Your task to perform on an android device: turn pop-ups on in chrome Image 0: 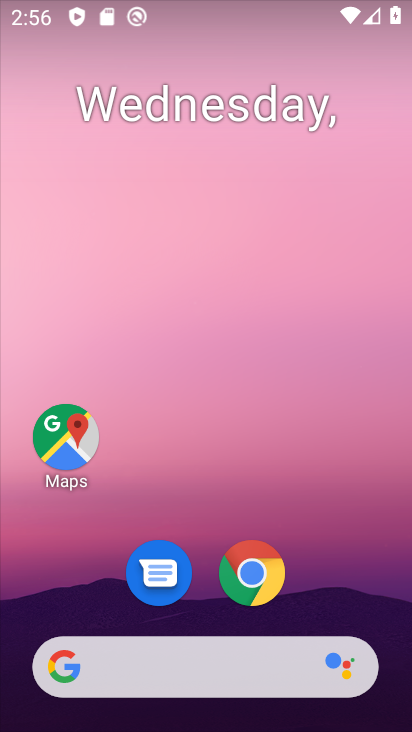
Step 0: click (250, 576)
Your task to perform on an android device: turn pop-ups on in chrome Image 1: 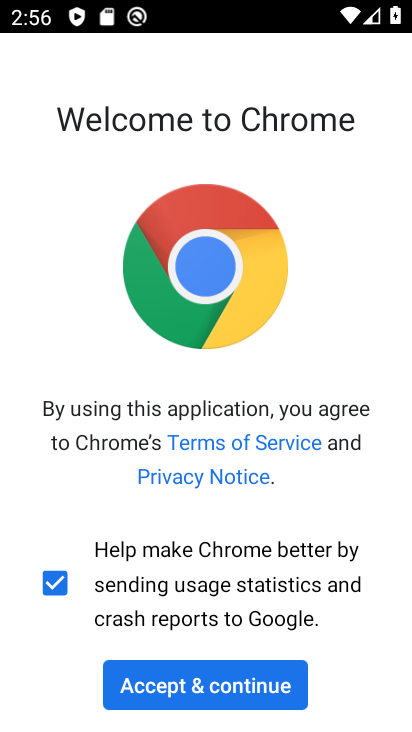
Step 1: click (229, 678)
Your task to perform on an android device: turn pop-ups on in chrome Image 2: 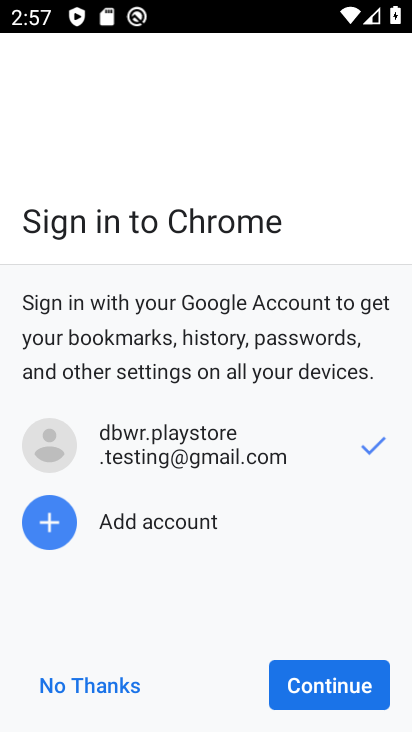
Step 2: click (295, 681)
Your task to perform on an android device: turn pop-ups on in chrome Image 3: 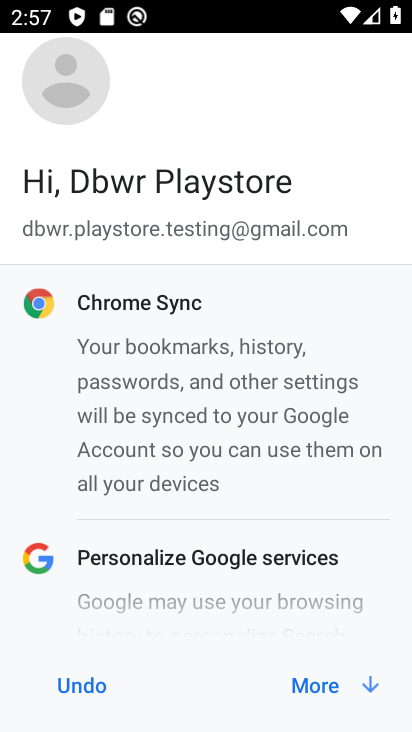
Step 3: click (314, 680)
Your task to perform on an android device: turn pop-ups on in chrome Image 4: 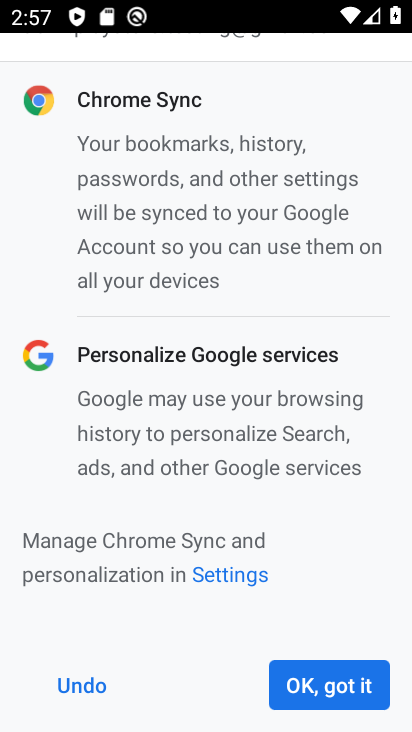
Step 4: click (316, 685)
Your task to perform on an android device: turn pop-ups on in chrome Image 5: 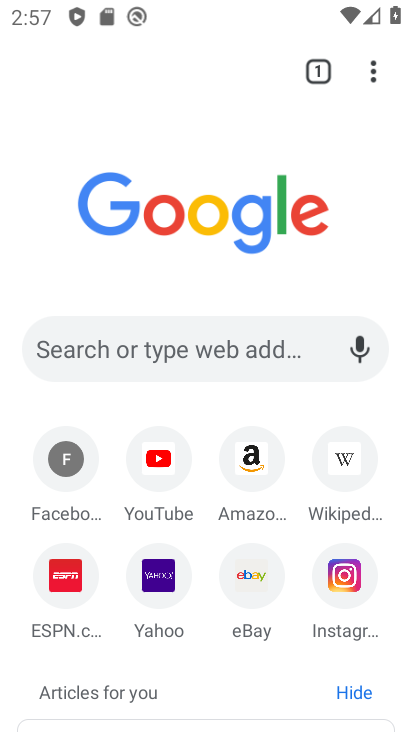
Step 5: click (370, 73)
Your task to perform on an android device: turn pop-ups on in chrome Image 6: 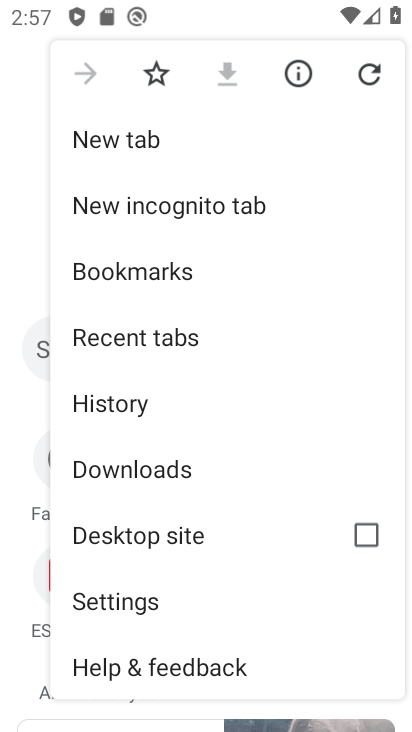
Step 6: click (129, 593)
Your task to perform on an android device: turn pop-ups on in chrome Image 7: 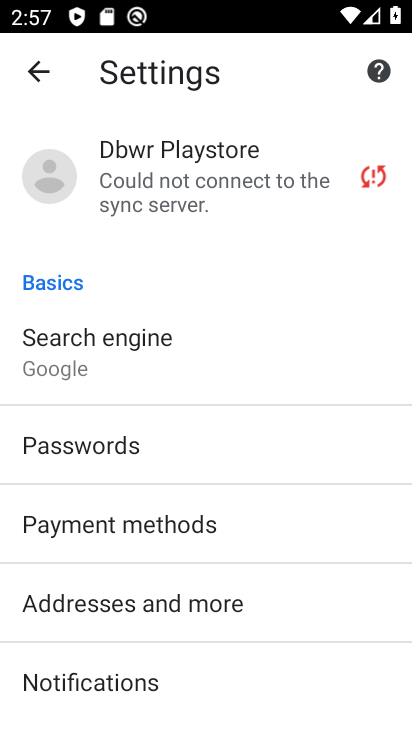
Step 7: drag from (296, 659) to (282, 242)
Your task to perform on an android device: turn pop-ups on in chrome Image 8: 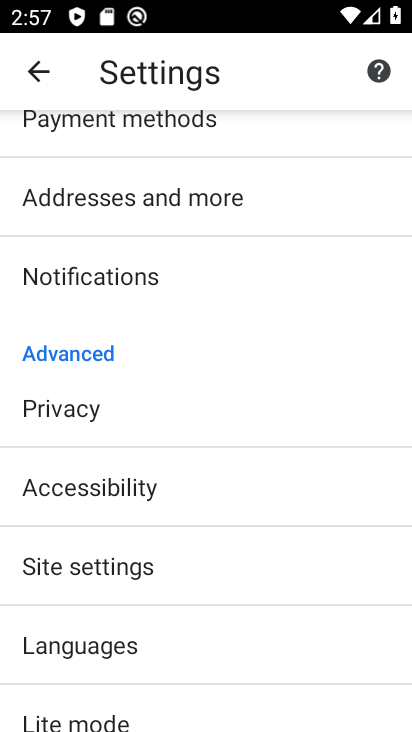
Step 8: click (86, 562)
Your task to perform on an android device: turn pop-ups on in chrome Image 9: 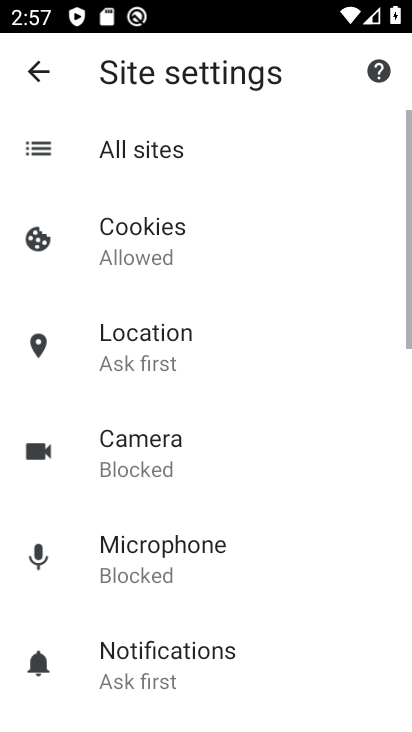
Step 9: drag from (169, 653) to (172, 187)
Your task to perform on an android device: turn pop-ups on in chrome Image 10: 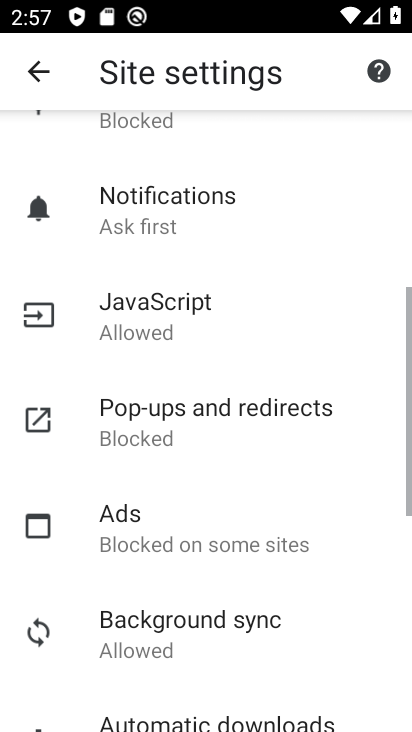
Step 10: click (167, 411)
Your task to perform on an android device: turn pop-ups on in chrome Image 11: 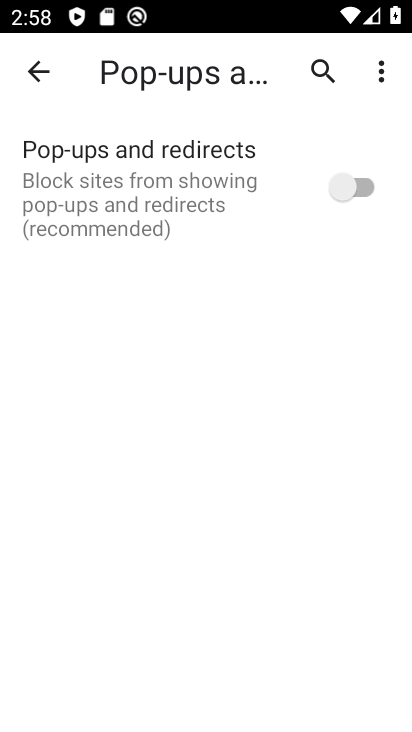
Step 11: click (364, 176)
Your task to perform on an android device: turn pop-ups on in chrome Image 12: 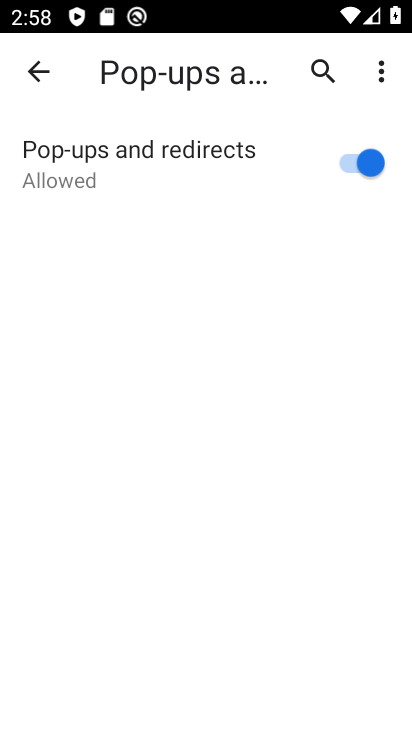
Step 12: task complete